Your task to perform on an android device: turn off location Image 0: 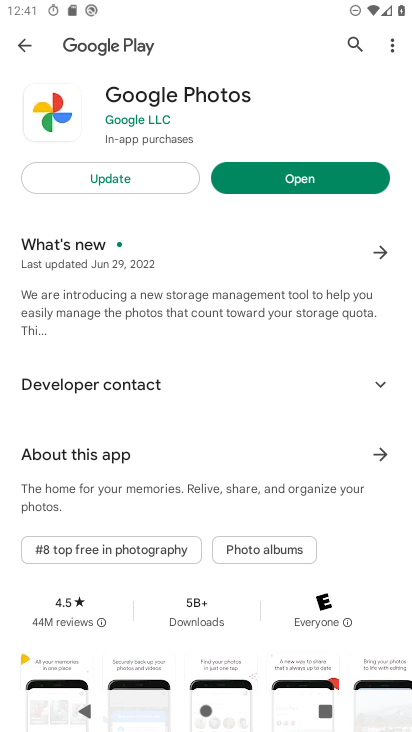
Step 0: press home button
Your task to perform on an android device: turn off location Image 1: 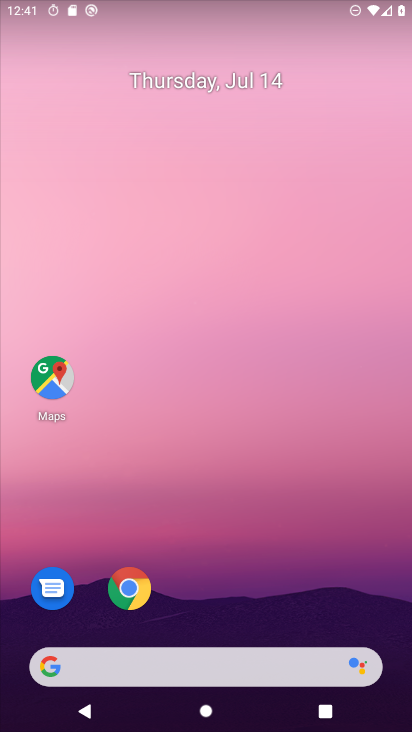
Step 1: drag from (112, 670) to (285, 40)
Your task to perform on an android device: turn off location Image 2: 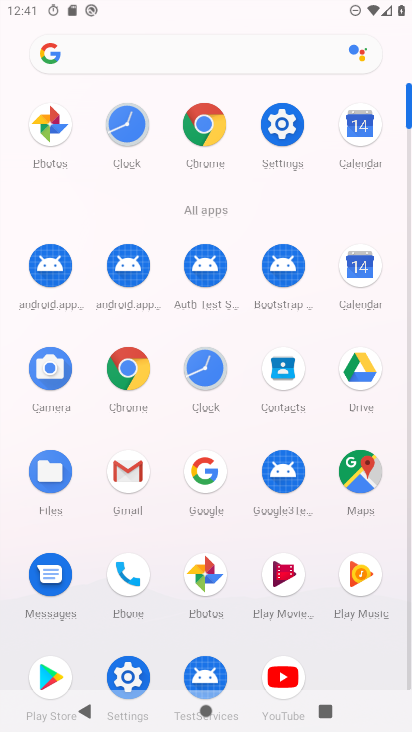
Step 2: click (275, 132)
Your task to perform on an android device: turn off location Image 3: 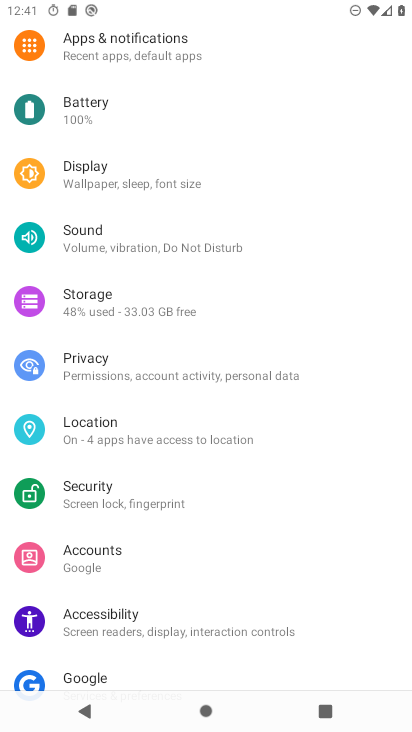
Step 3: drag from (250, 118) to (247, 506)
Your task to perform on an android device: turn off location Image 4: 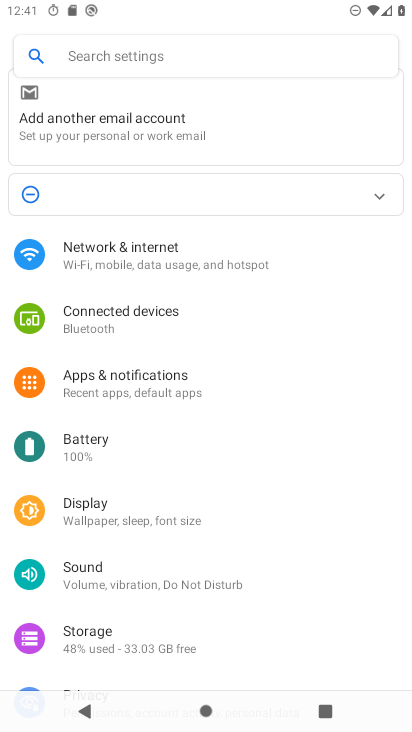
Step 4: drag from (139, 608) to (274, 275)
Your task to perform on an android device: turn off location Image 5: 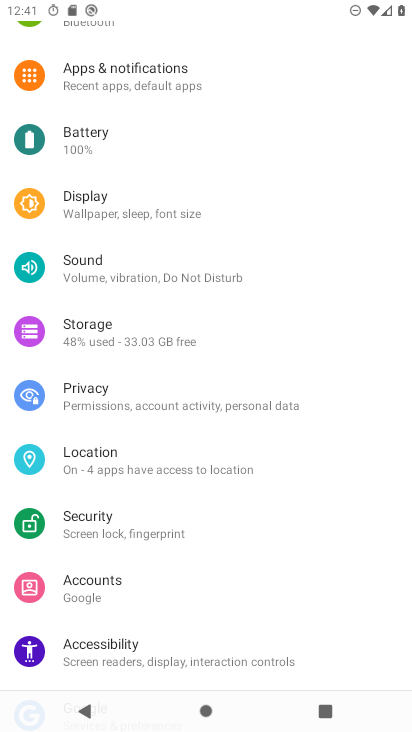
Step 5: click (141, 453)
Your task to perform on an android device: turn off location Image 6: 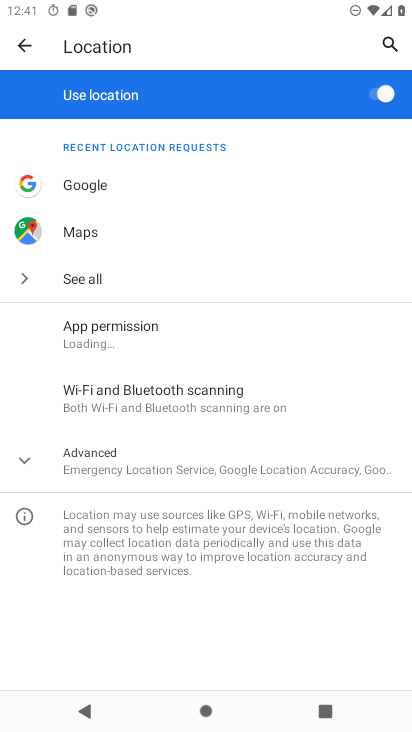
Step 6: click (376, 95)
Your task to perform on an android device: turn off location Image 7: 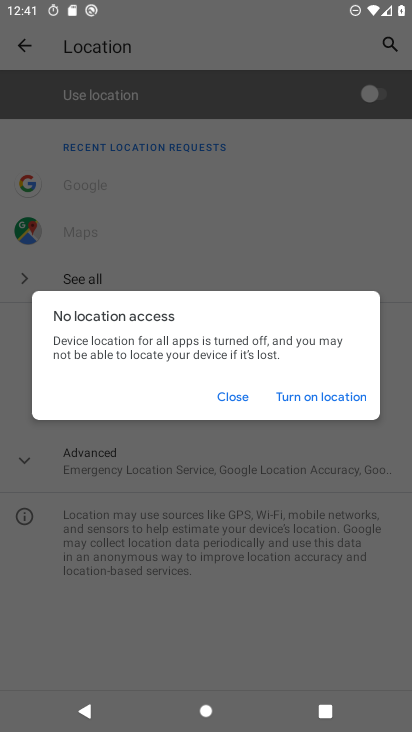
Step 7: click (242, 402)
Your task to perform on an android device: turn off location Image 8: 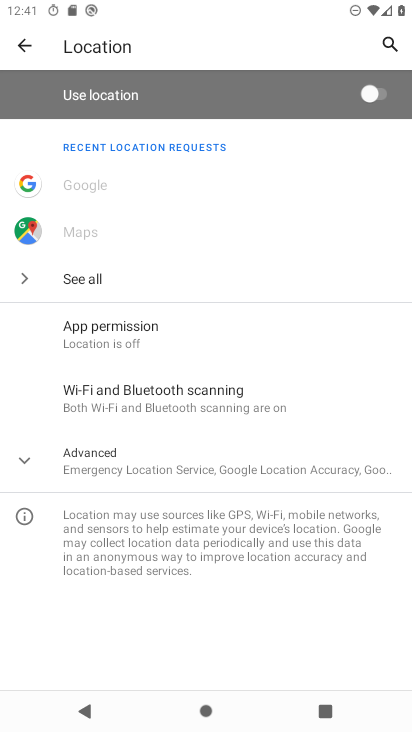
Step 8: task complete